Your task to perform on an android device: change notification settings in the gmail app Image 0: 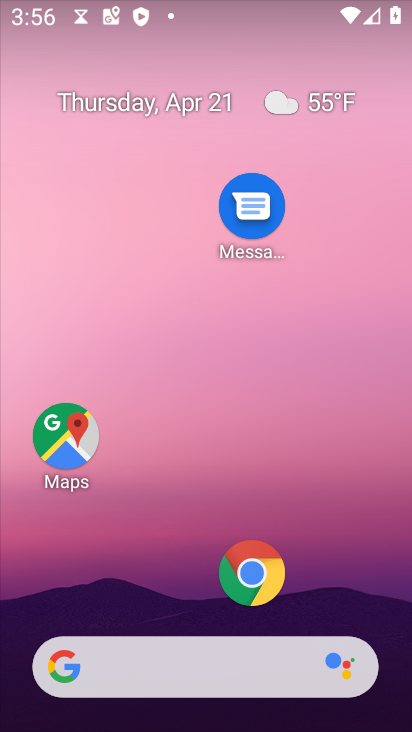
Step 0: drag from (218, 700) to (257, 80)
Your task to perform on an android device: change notification settings in the gmail app Image 1: 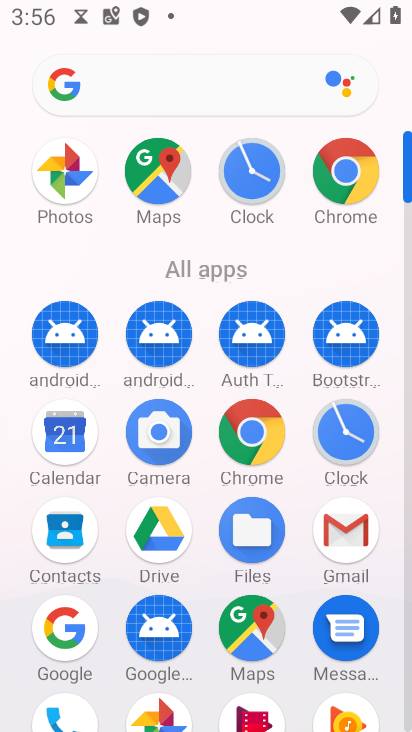
Step 1: click (333, 518)
Your task to perform on an android device: change notification settings in the gmail app Image 2: 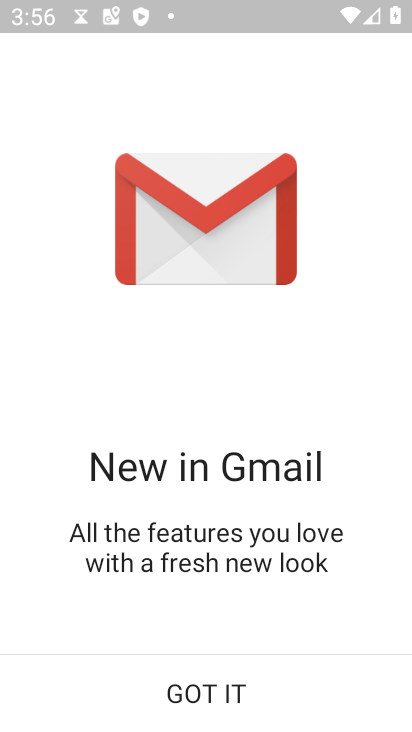
Step 2: click (192, 683)
Your task to perform on an android device: change notification settings in the gmail app Image 3: 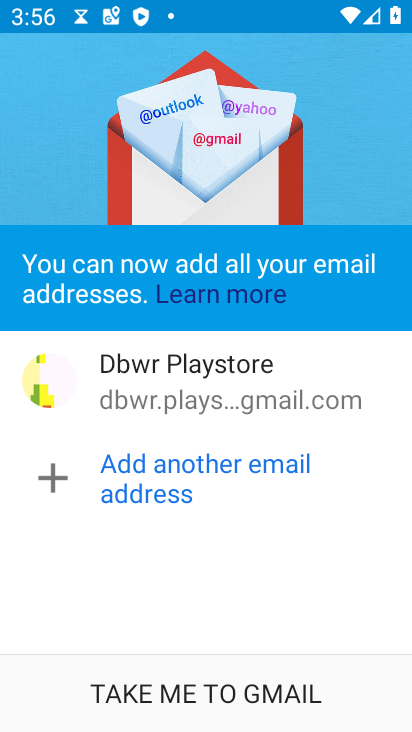
Step 3: click (192, 683)
Your task to perform on an android device: change notification settings in the gmail app Image 4: 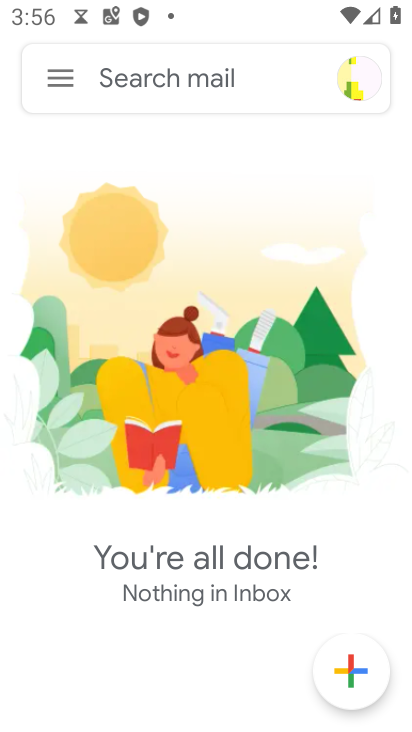
Step 4: click (46, 86)
Your task to perform on an android device: change notification settings in the gmail app Image 5: 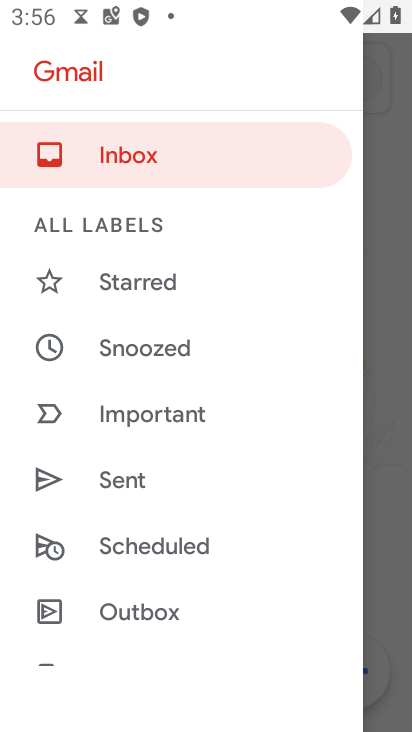
Step 5: drag from (133, 544) to (203, 135)
Your task to perform on an android device: change notification settings in the gmail app Image 6: 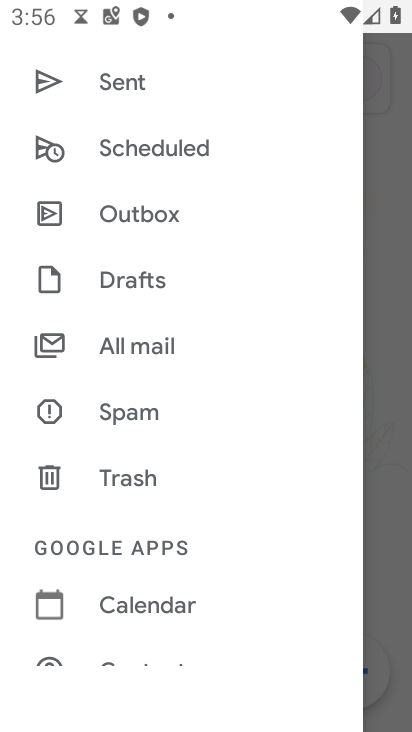
Step 6: drag from (156, 481) to (185, 321)
Your task to perform on an android device: change notification settings in the gmail app Image 7: 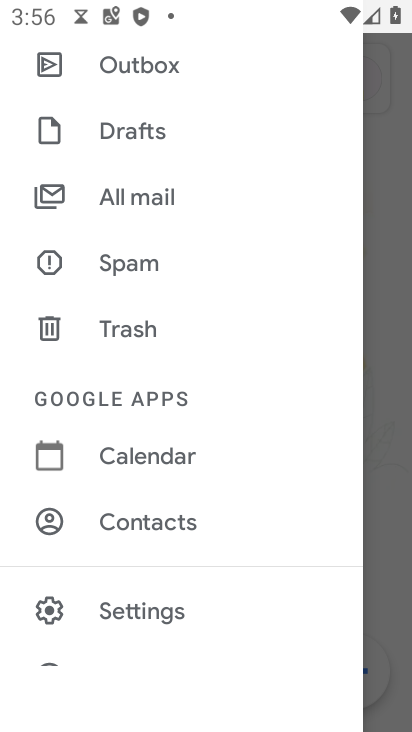
Step 7: click (131, 609)
Your task to perform on an android device: change notification settings in the gmail app Image 8: 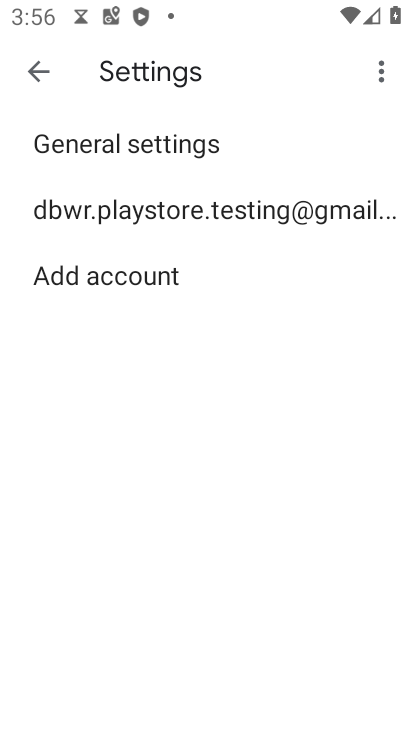
Step 8: click (227, 231)
Your task to perform on an android device: change notification settings in the gmail app Image 9: 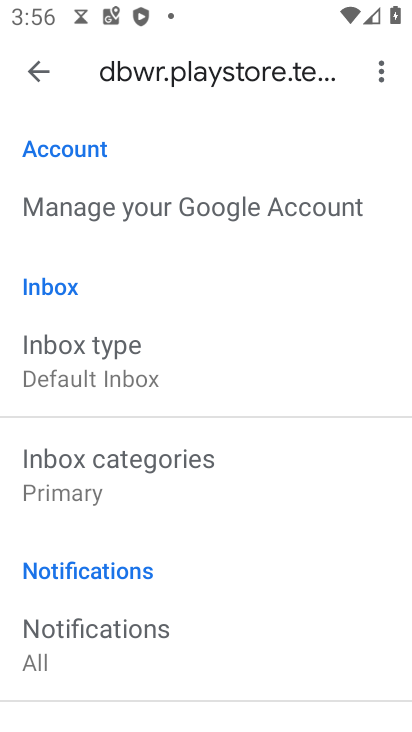
Step 9: click (76, 627)
Your task to perform on an android device: change notification settings in the gmail app Image 10: 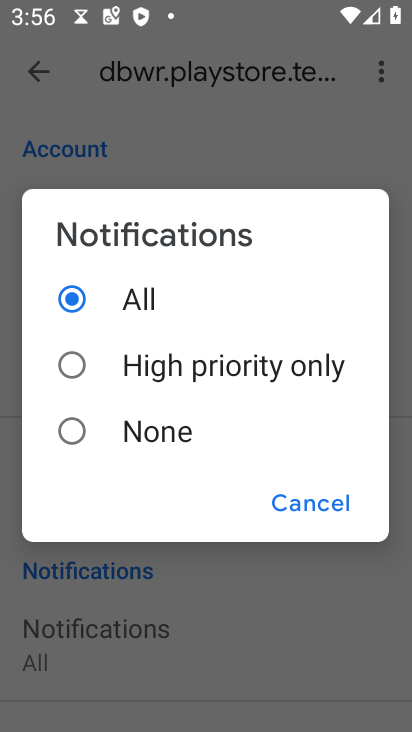
Step 10: click (184, 384)
Your task to perform on an android device: change notification settings in the gmail app Image 11: 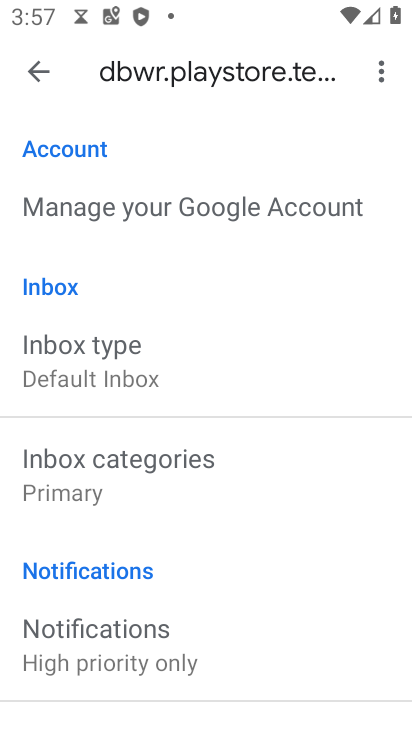
Step 11: task complete